Your task to perform on an android device: Go to network settings Image 0: 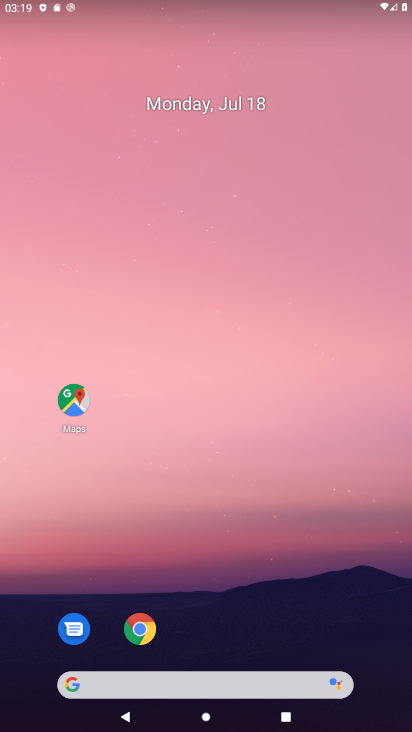
Step 0: drag from (361, 573) to (287, 120)
Your task to perform on an android device: Go to network settings Image 1: 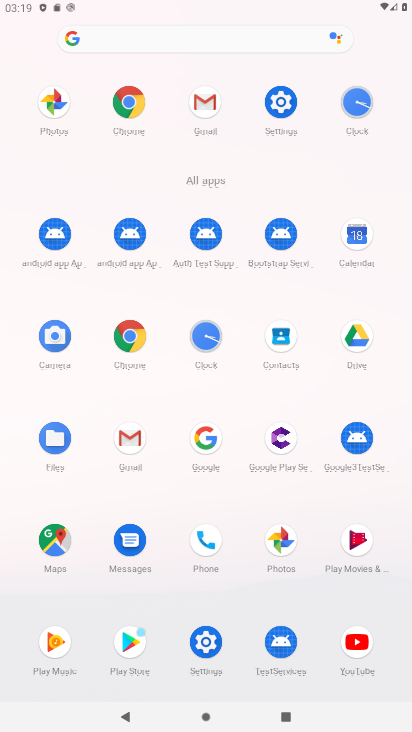
Step 1: click (280, 98)
Your task to perform on an android device: Go to network settings Image 2: 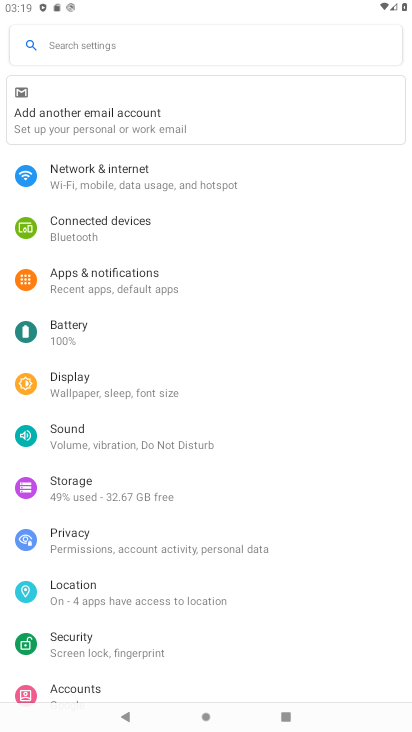
Step 2: click (103, 163)
Your task to perform on an android device: Go to network settings Image 3: 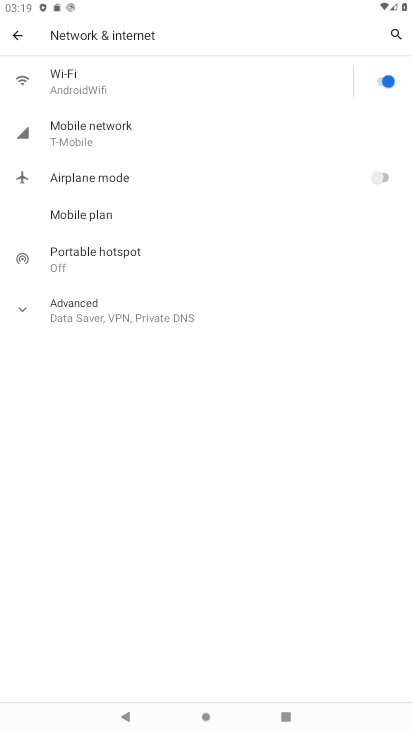
Step 3: task complete